Your task to perform on an android device: Open maps Image 0: 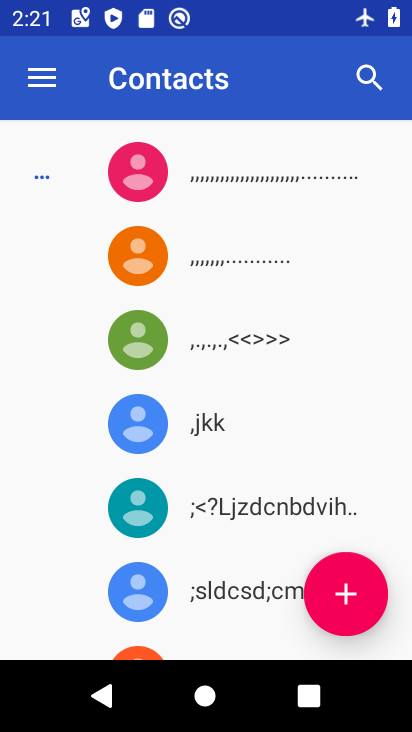
Step 0: press home button
Your task to perform on an android device: Open maps Image 1: 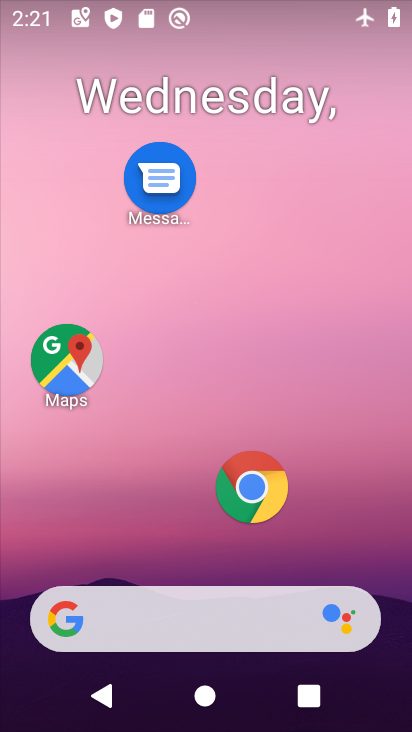
Step 1: click (65, 351)
Your task to perform on an android device: Open maps Image 2: 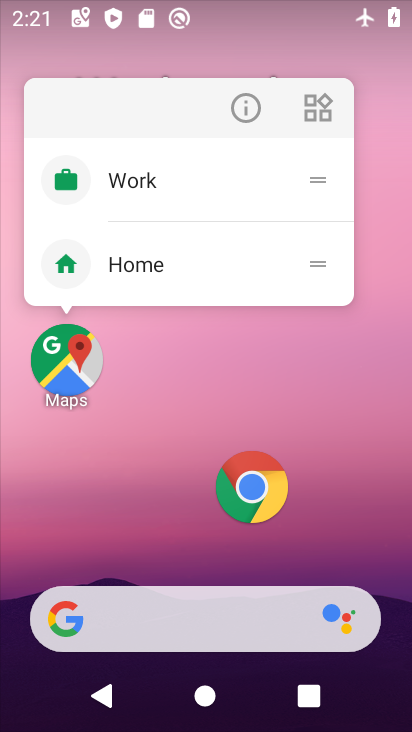
Step 2: click (62, 353)
Your task to perform on an android device: Open maps Image 3: 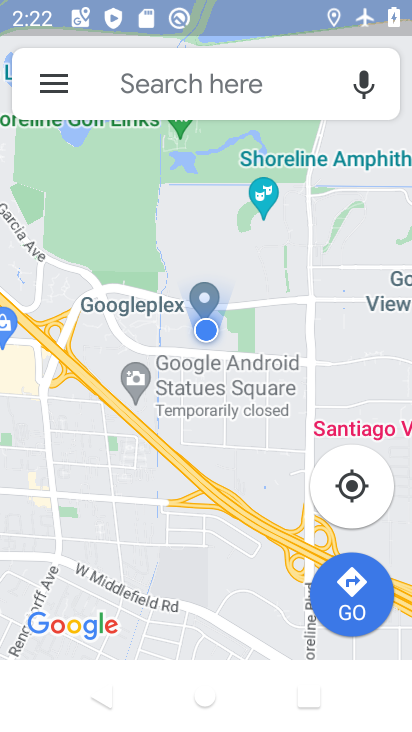
Step 3: task complete